Your task to perform on an android device: Check the news Image 0: 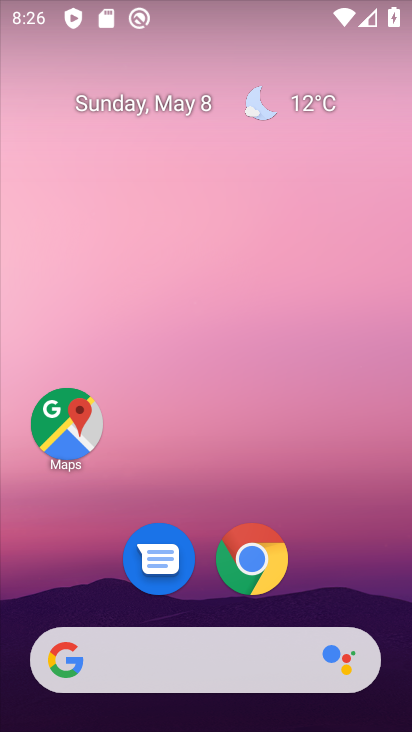
Step 0: drag from (219, 605) to (220, 129)
Your task to perform on an android device: Check the news Image 1: 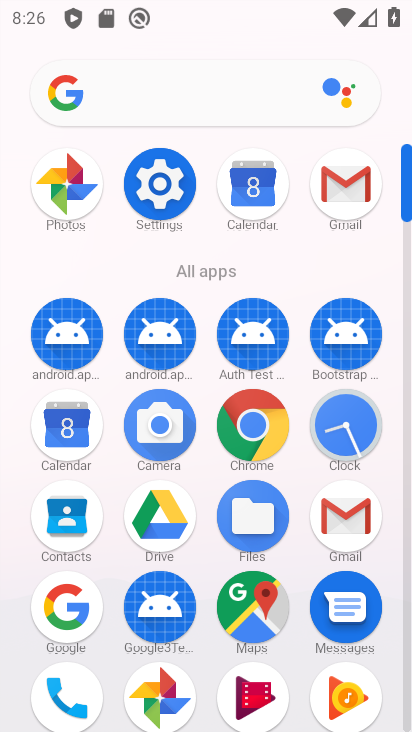
Step 1: click (71, 604)
Your task to perform on an android device: Check the news Image 2: 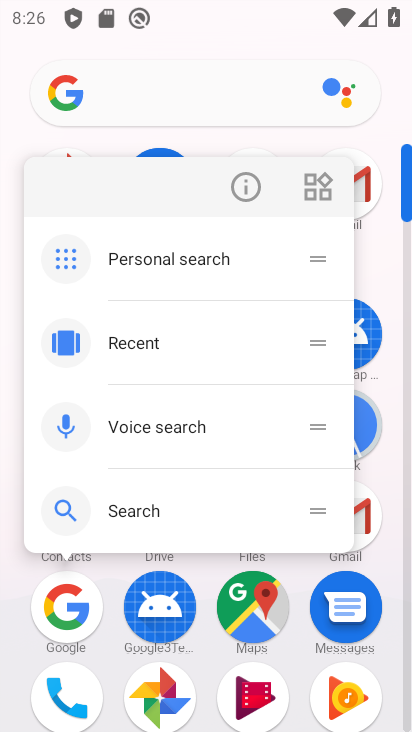
Step 2: click (65, 611)
Your task to perform on an android device: Check the news Image 3: 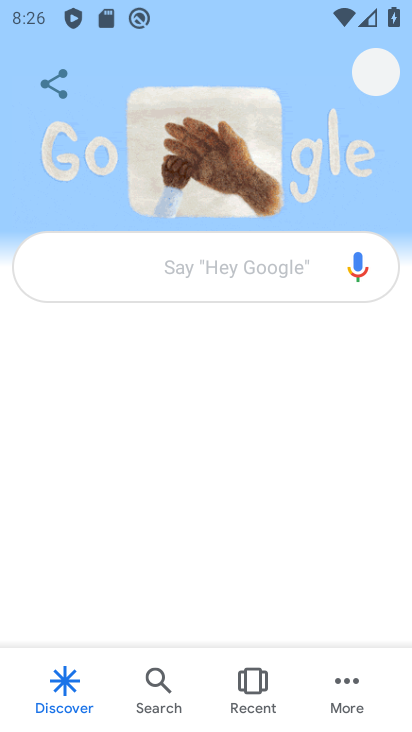
Step 3: click (181, 264)
Your task to perform on an android device: Check the news Image 4: 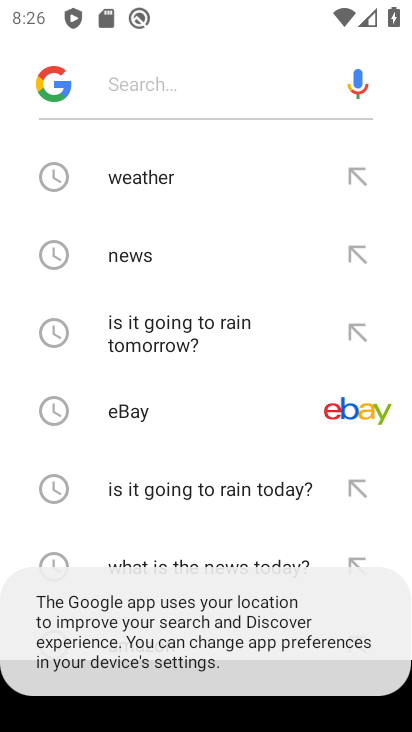
Step 4: click (134, 261)
Your task to perform on an android device: Check the news Image 5: 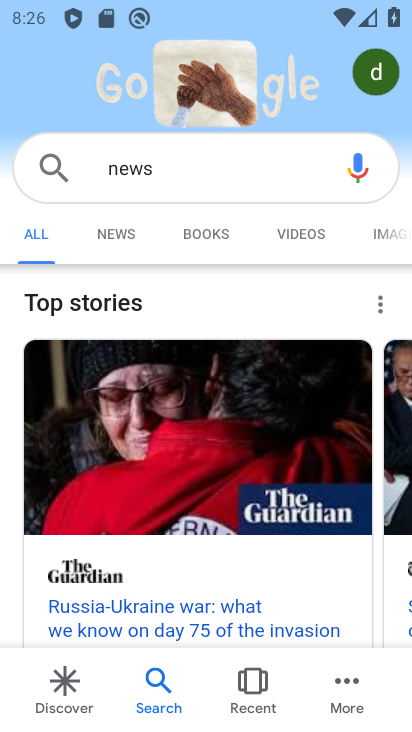
Step 5: task complete